Your task to perform on an android device: empty trash in the gmail app Image 0: 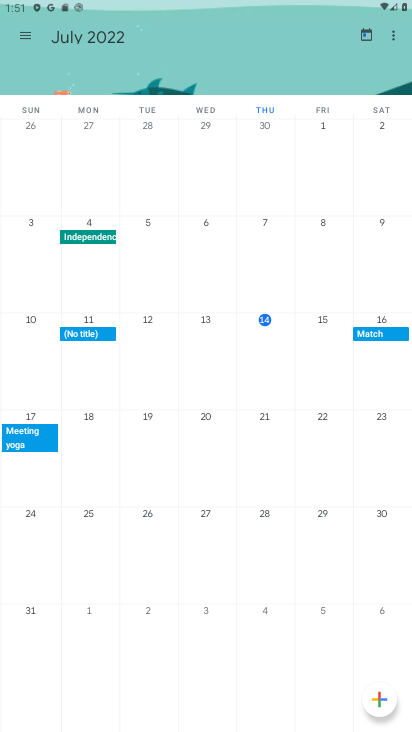
Step 0: press home button
Your task to perform on an android device: empty trash in the gmail app Image 1: 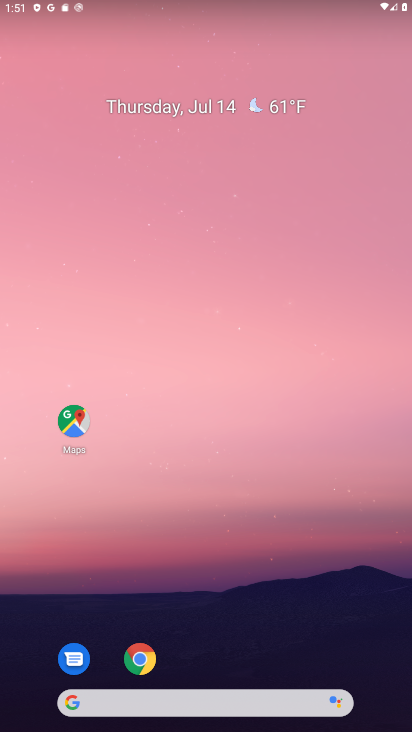
Step 1: drag from (203, 682) to (253, 78)
Your task to perform on an android device: empty trash in the gmail app Image 2: 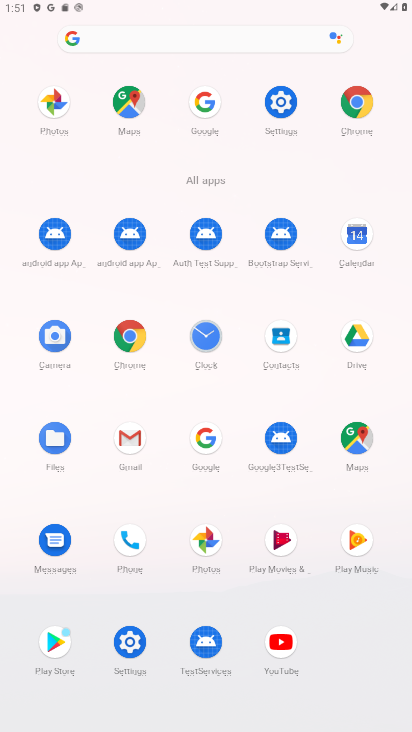
Step 2: click (216, 540)
Your task to perform on an android device: empty trash in the gmail app Image 3: 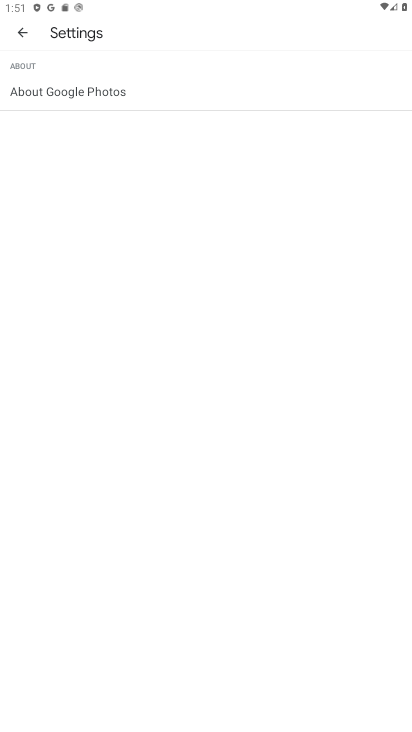
Step 3: click (19, 33)
Your task to perform on an android device: empty trash in the gmail app Image 4: 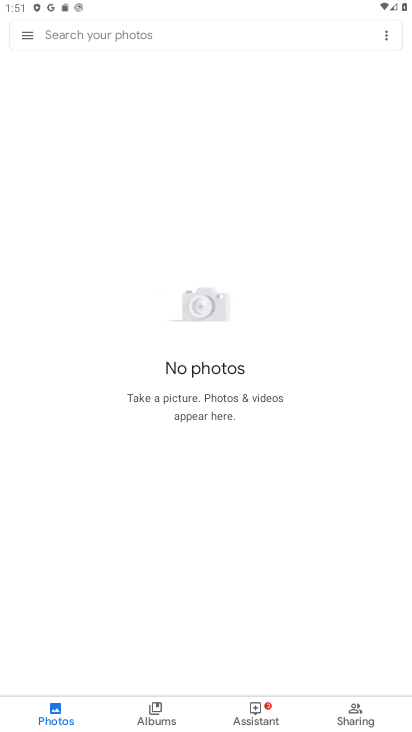
Step 4: click (21, 34)
Your task to perform on an android device: empty trash in the gmail app Image 5: 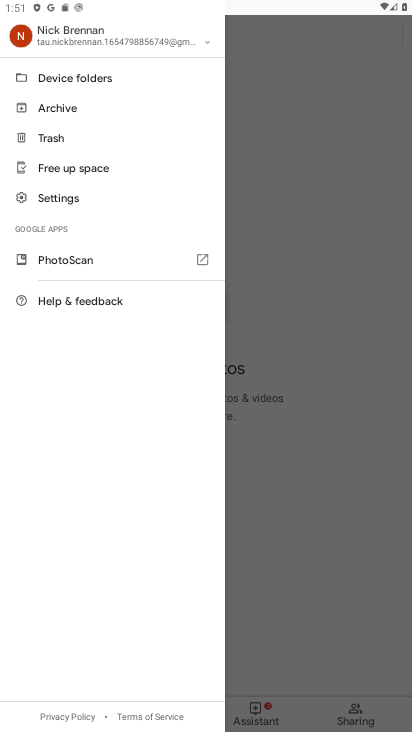
Step 5: click (49, 135)
Your task to perform on an android device: empty trash in the gmail app Image 6: 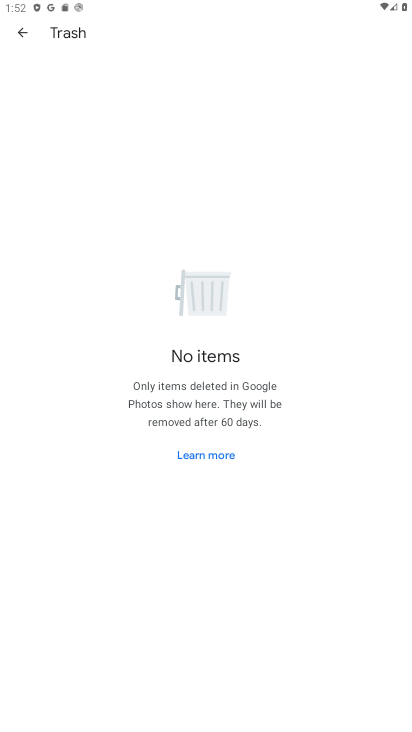
Step 6: task complete